Your task to perform on an android device: Open Chrome and go to settings Image 0: 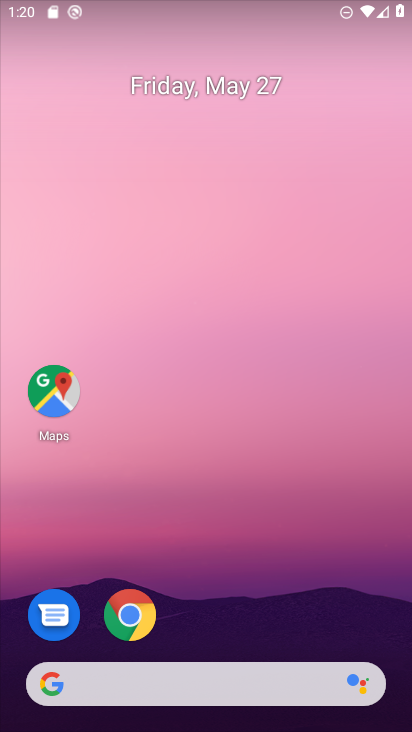
Step 0: drag from (197, 654) to (187, 141)
Your task to perform on an android device: Open Chrome and go to settings Image 1: 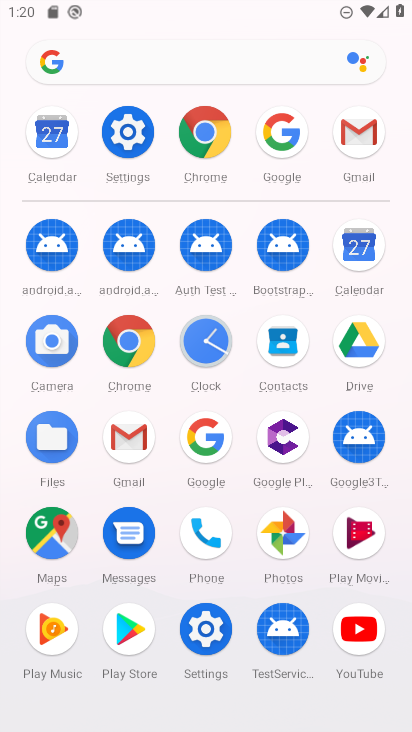
Step 1: click (136, 371)
Your task to perform on an android device: Open Chrome and go to settings Image 2: 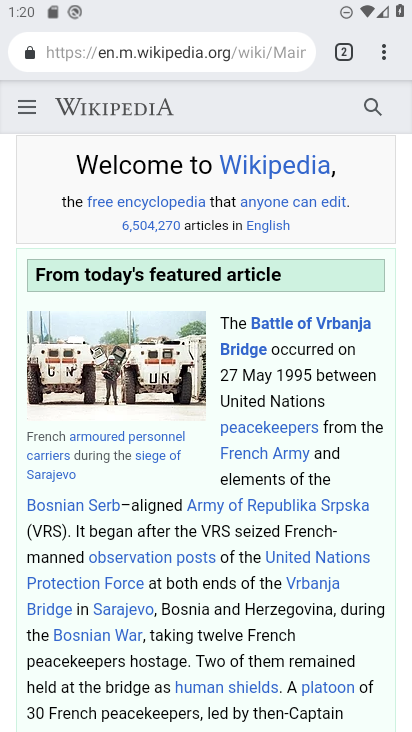
Step 2: click (377, 62)
Your task to perform on an android device: Open Chrome and go to settings Image 3: 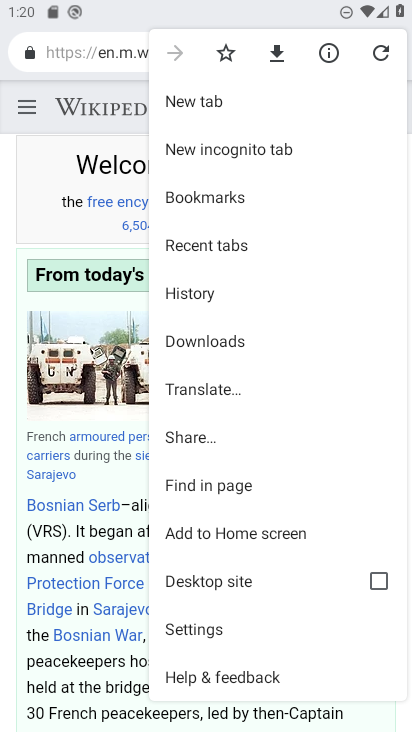
Step 3: click (220, 635)
Your task to perform on an android device: Open Chrome and go to settings Image 4: 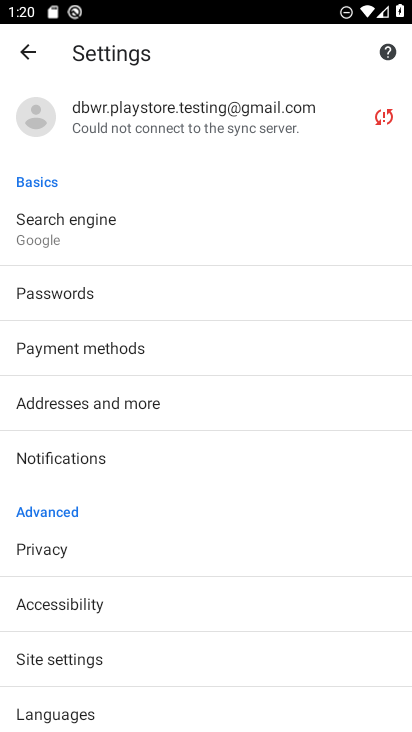
Step 4: task complete